Your task to perform on an android device: toggle javascript in the chrome app Image 0: 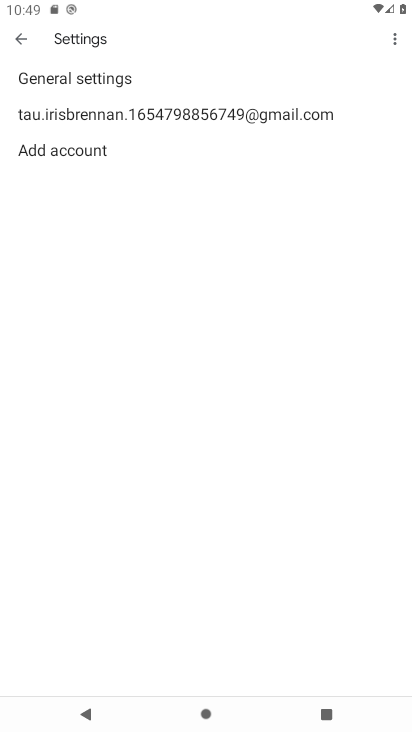
Step 0: click (19, 37)
Your task to perform on an android device: toggle javascript in the chrome app Image 1: 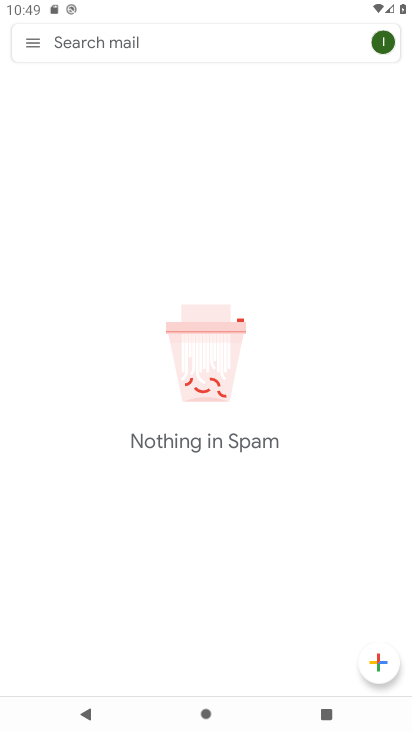
Step 1: press home button
Your task to perform on an android device: toggle javascript in the chrome app Image 2: 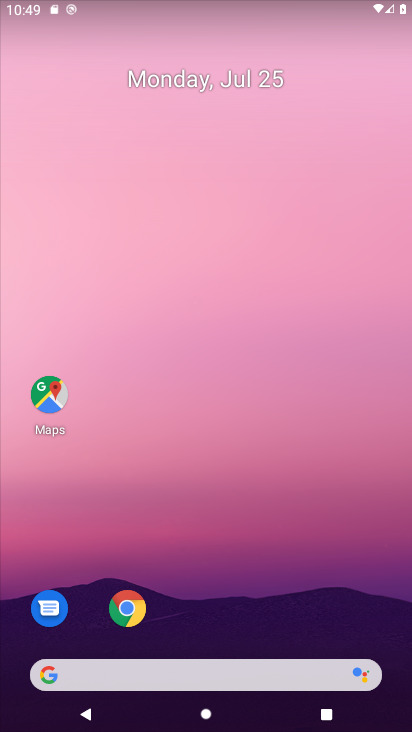
Step 2: click (133, 619)
Your task to perform on an android device: toggle javascript in the chrome app Image 3: 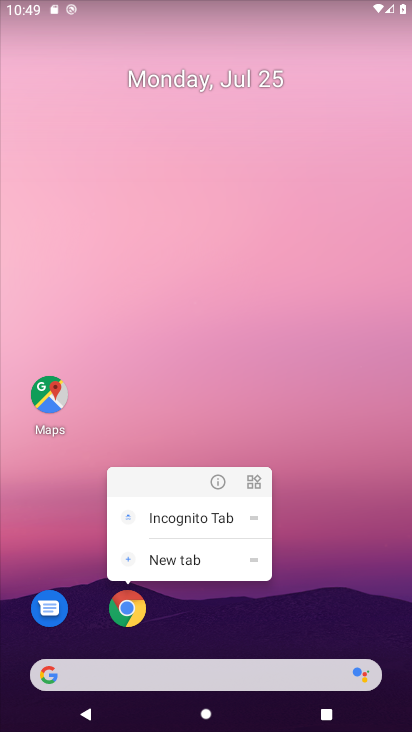
Step 3: click (133, 619)
Your task to perform on an android device: toggle javascript in the chrome app Image 4: 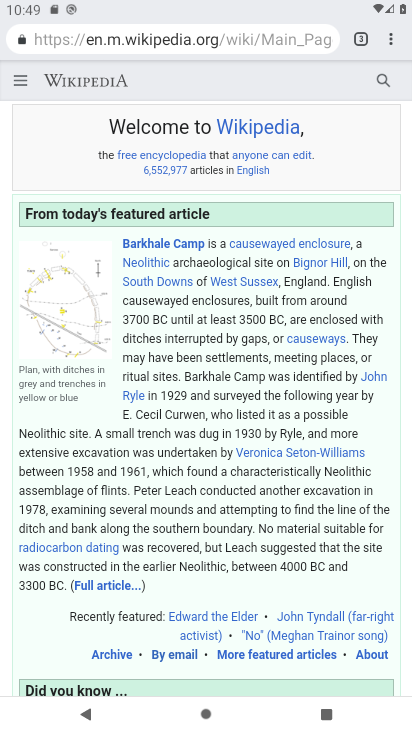
Step 4: click (391, 32)
Your task to perform on an android device: toggle javascript in the chrome app Image 5: 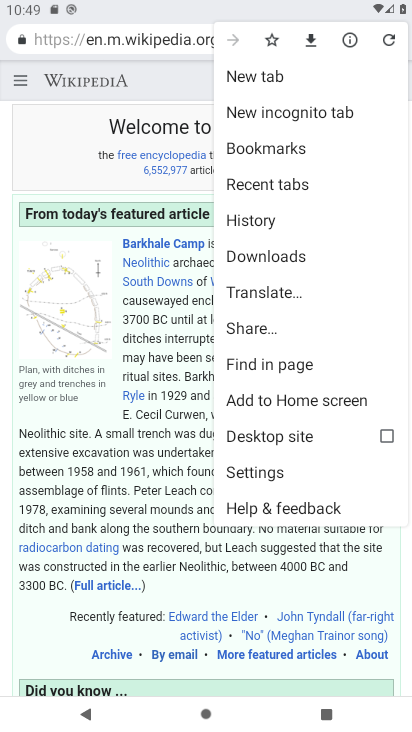
Step 5: click (290, 464)
Your task to perform on an android device: toggle javascript in the chrome app Image 6: 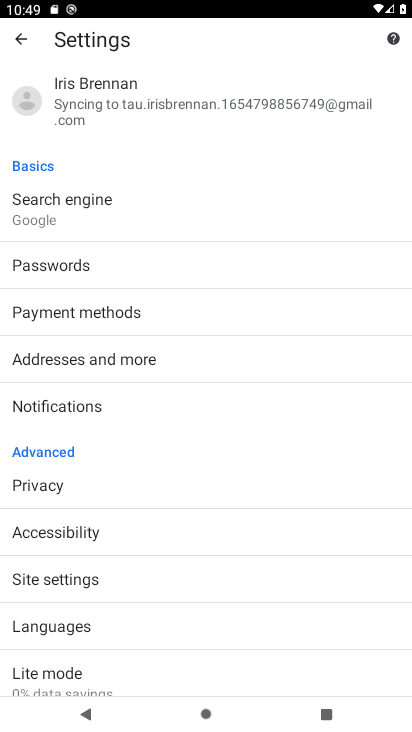
Step 6: click (106, 578)
Your task to perform on an android device: toggle javascript in the chrome app Image 7: 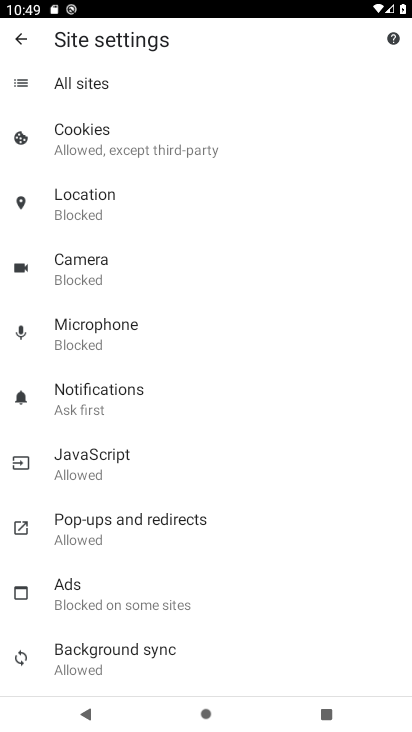
Step 7: click (62, 457)
Your task to perform on an android device: toggle javascript in the chrome app Image 8: 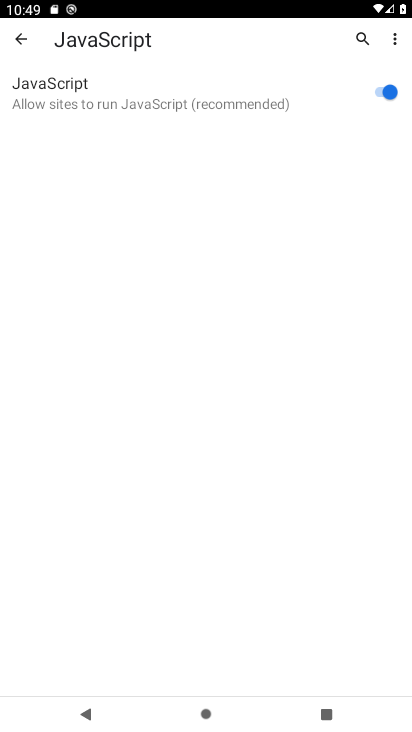
Step 8: click (385, 99)
Your task to perform on an android device: toggle javascript in the chrome app Image 9: 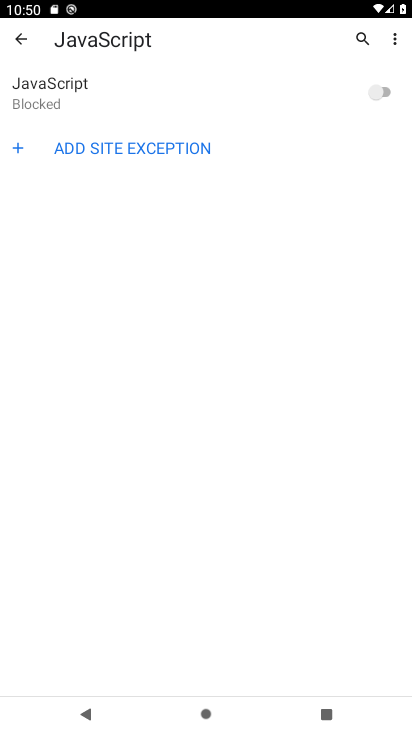
Step 9: task complete